Your task to perform on an android device: Open calendar and show me the second week of next month Image 0: 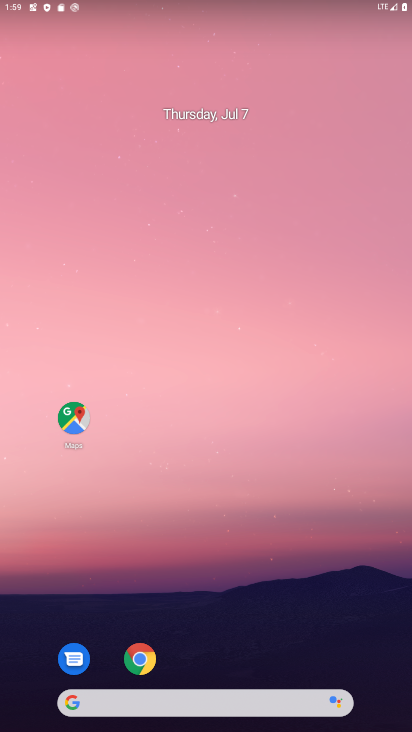
Step 0: drag from (221, 658) to (230, 101)
Your task to perform on an android device: Open calendar and show me the second week of next month Image 1: 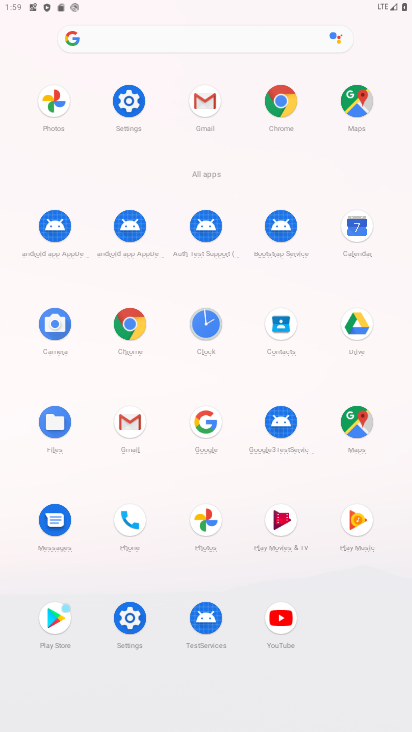
Step 1: click (359, 228)
Your task to perform on an android device: Open calendar and show me the second week of next month Image 2: 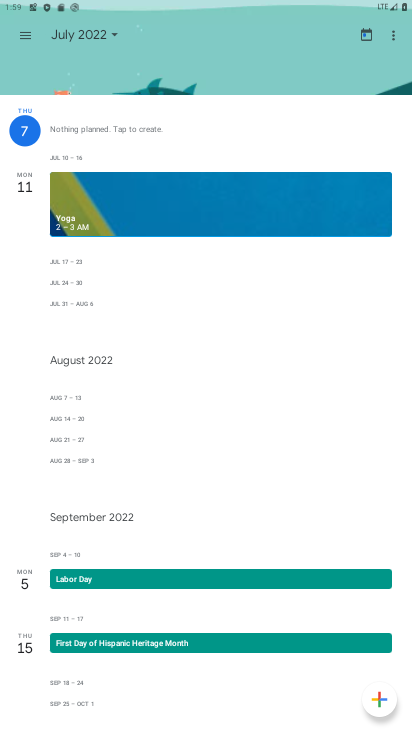
Step 2: click (111, 35)
Your task to perform on an android device: Open calendar and show me the second week of next month Image 3: 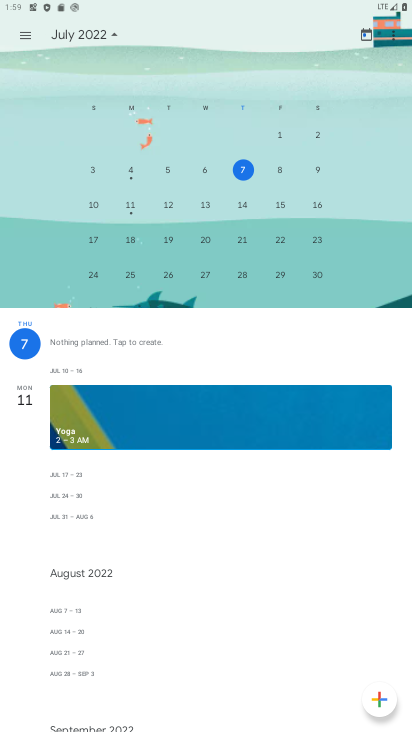
Step 3: drag from (371, 189) to (14, 226)
Your task to perform on an android device: Open calendar and show me the second week of next month Image 4: 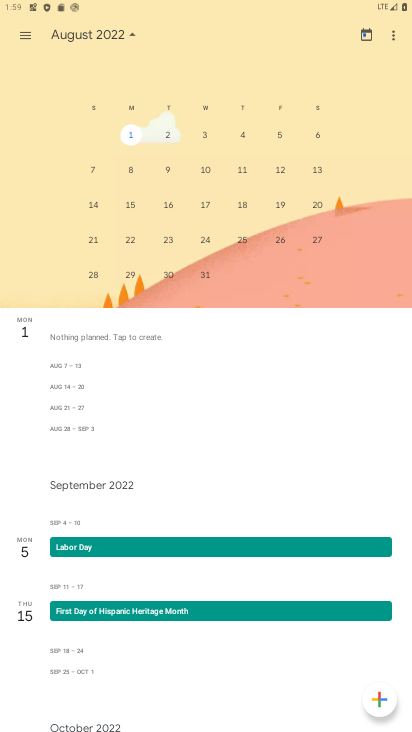
Step 4: click (129, 171)
Your task to perform on an android device: Open calendar and show me the second week of next month Image 5: 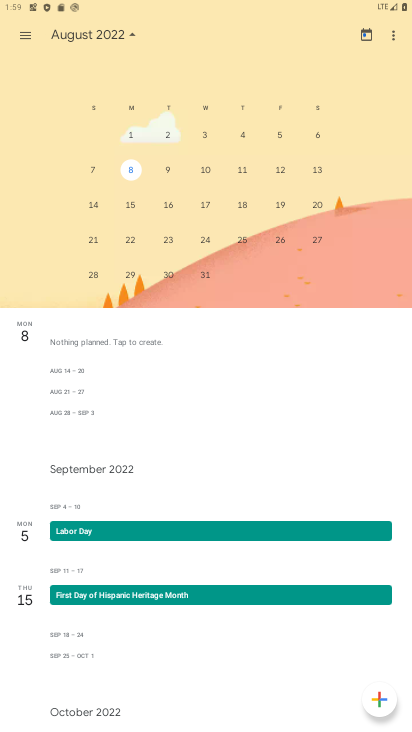
Step 5: click (25, 38)
Your task to perform on an android device: Open calendar and show me the second week of next month Image 6: 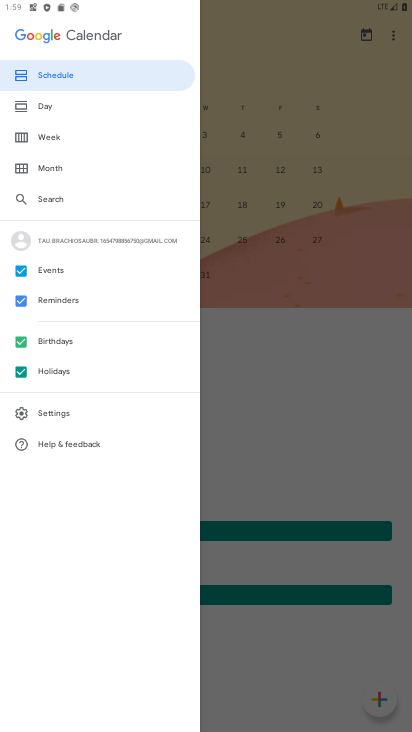
Step 6: click (46, 143)
Your task to perform on an android device: Open calendar and show me the second week of next month Image 7: 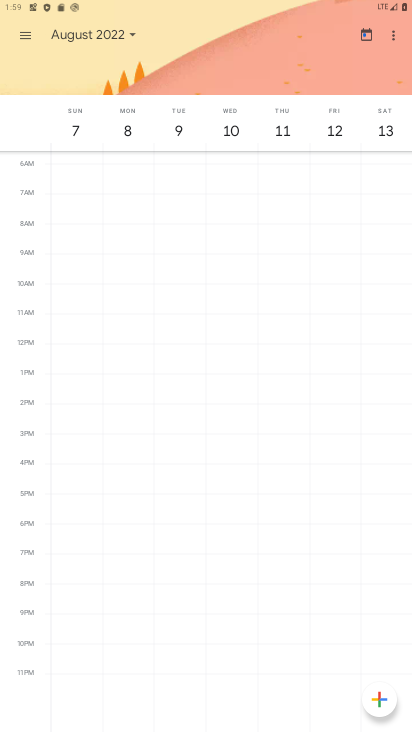
Step 7: task complete